Your task to perform on an android device: choose inbox layout in the gmail app Image 0: 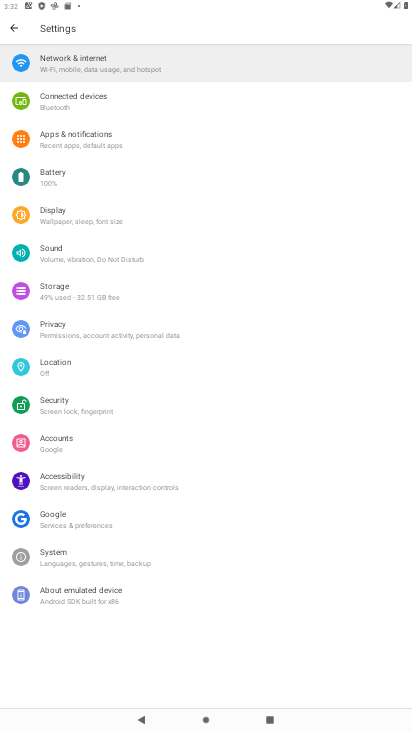
Step 0: press home button
Your task to perform on an android device: choose inbox layout in the gmail app Image 1: 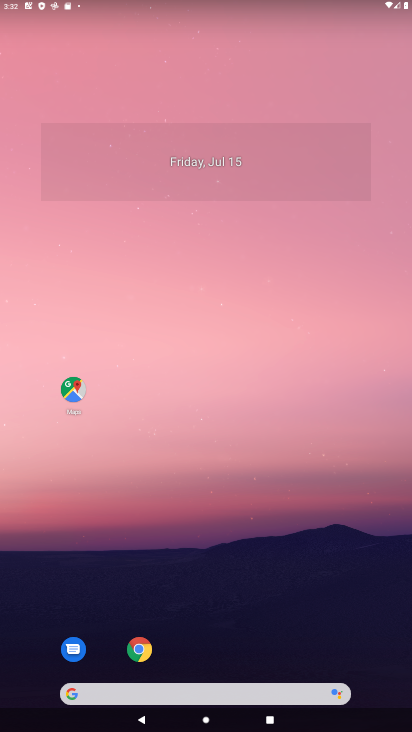
Step 1: drag from (289, 619) to (283, 145)
Your task to perform on an android device: choose inbox layout in the gmail app Image 2: 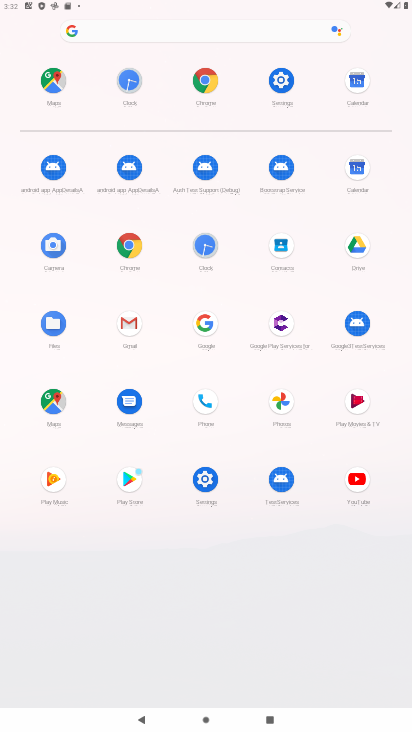
Step 2: click (127, 328)
Your task to perform on an android device: choose inbox layout in the gmail app Image 3: 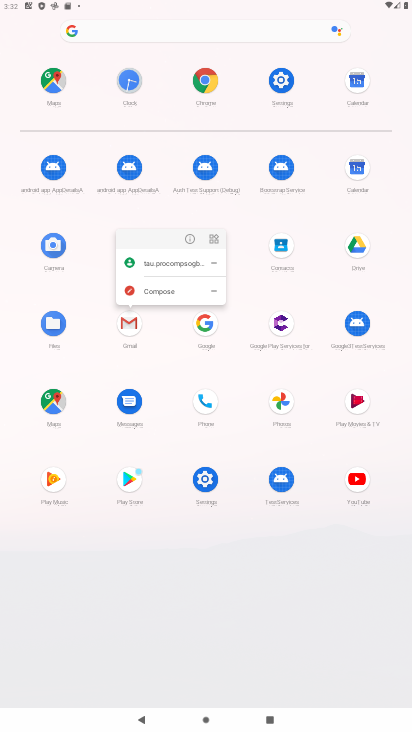
Step 3: click (127, 328)
Your task to perform on an android device: choose inbox layout in the gmail app Image 4: 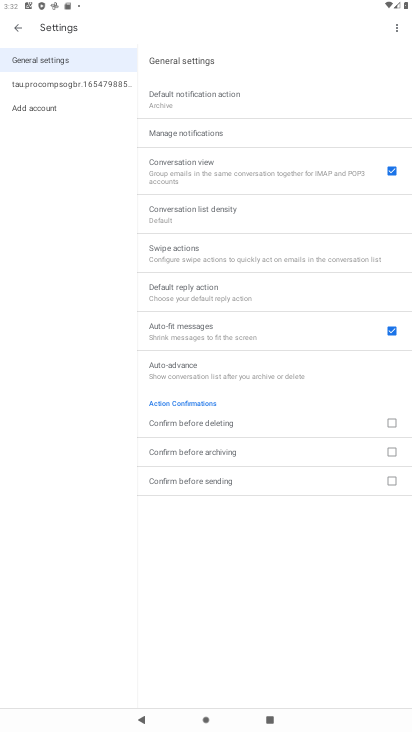
Step 4: click (105, 84)
Your task to perform on an android device: choose inbox layout in the gmail app Image 5: 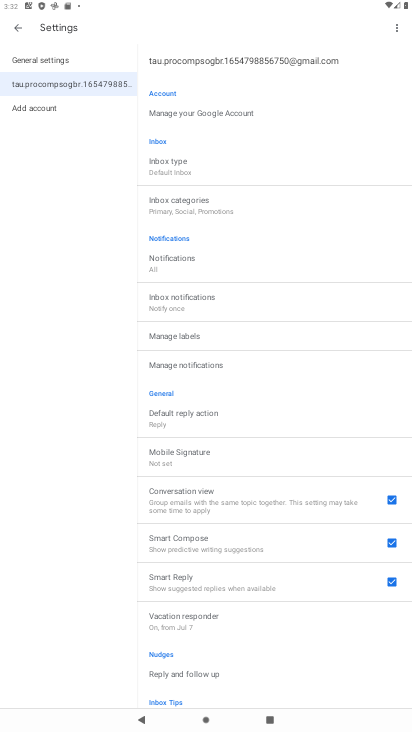
Step 5: click (178, 165)
Your task to perform on an android device: choose inbox layout in the gmail app Image 6: 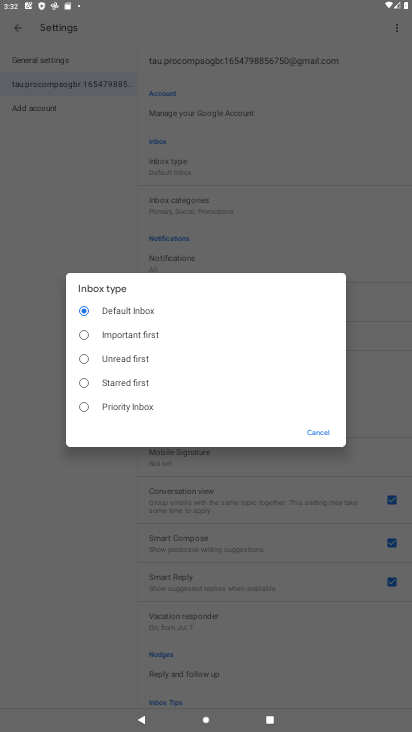
Step 6: task complete